Your task to perform on an android device: toggle airplane mode Image 0: 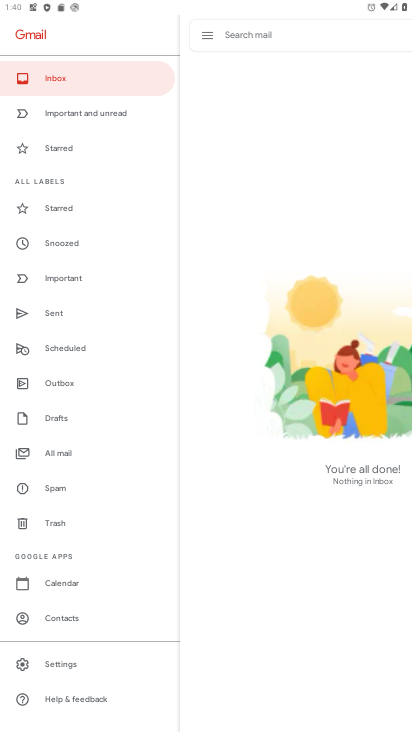
Step 0: press home button
Your task to perform on an android device: toggle airplane mode Image 1: 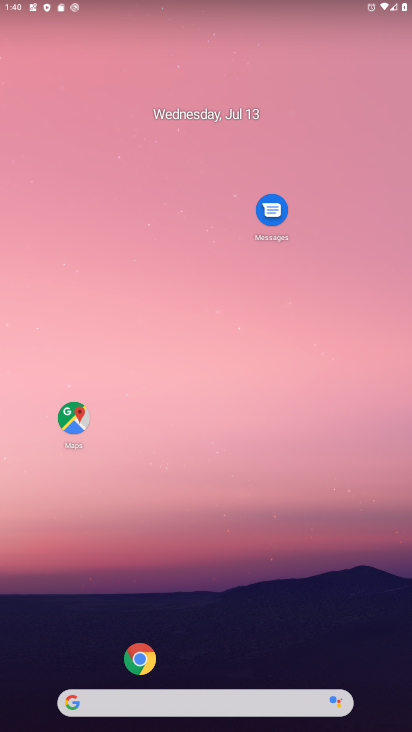
Step 1: drag from (34, 661) to (380, 43)
Your task to perform on an android device: toggle airplane mode Image 2: 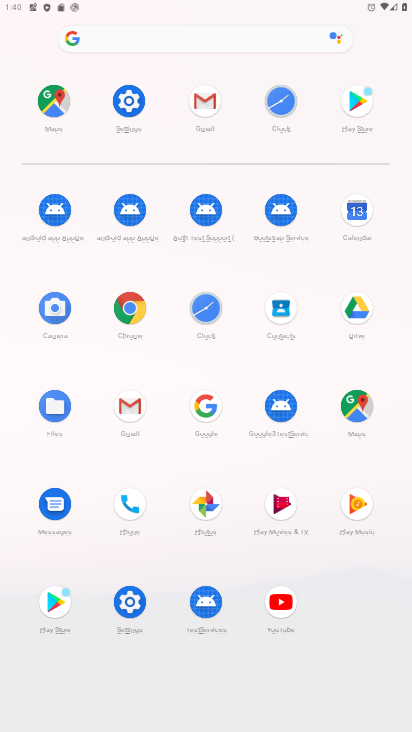
Step 2: click (138, 595)
Your task to perform on an android device: toggle airplane mode Image 3: 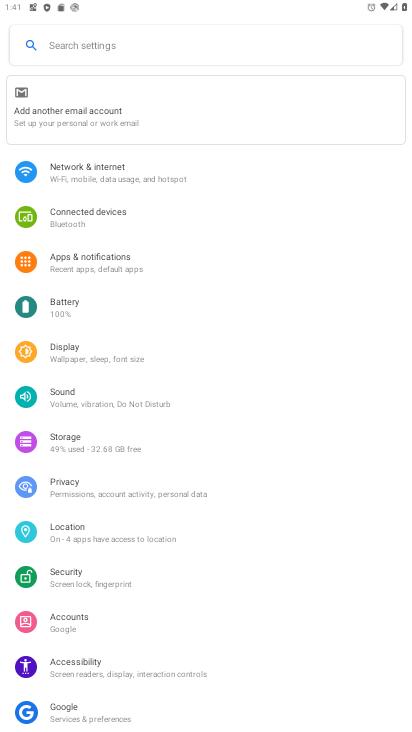
Step 3: click (119, 162)
Your task to perform on an android device: toggle airplane mode Image 4: 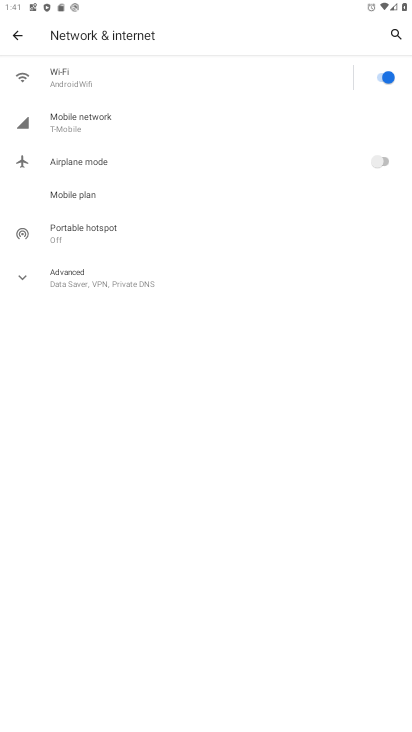
Step 4: task complete